Your task to perform on an android device: Open eBay Image 0: 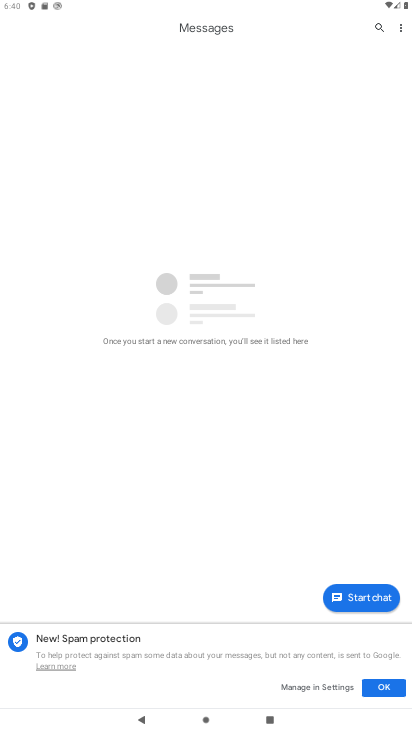
Step 0: press home button
Your task to perform on an android device: Open eBay Image 1: 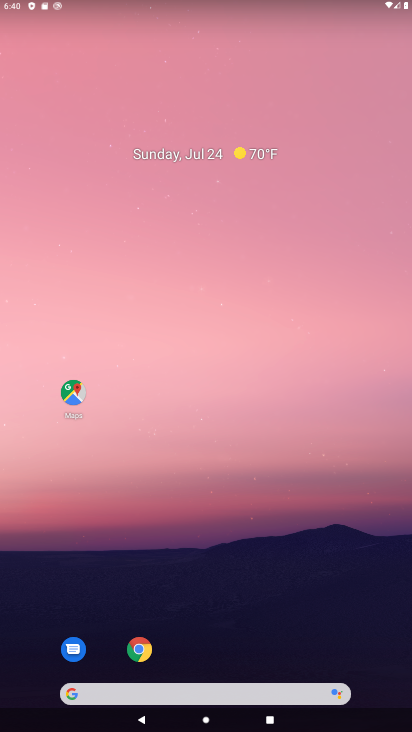
Step 1: click (143, 648)
Your task to perform on an android device: Open eBay Image 2: 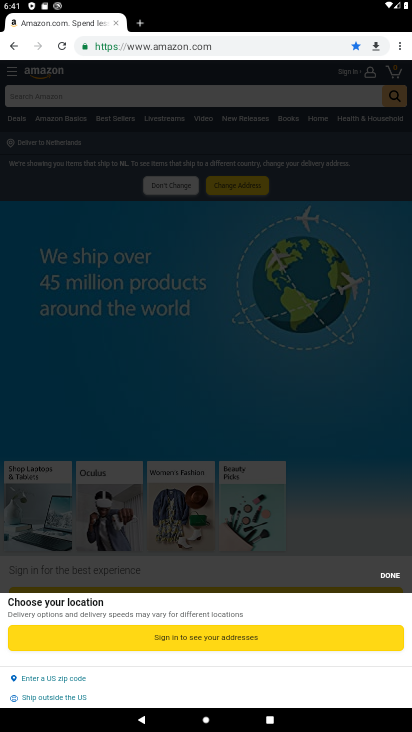
Step 2: click (398, 47)
Your task to perform on an android device: Open eBay Image 3: 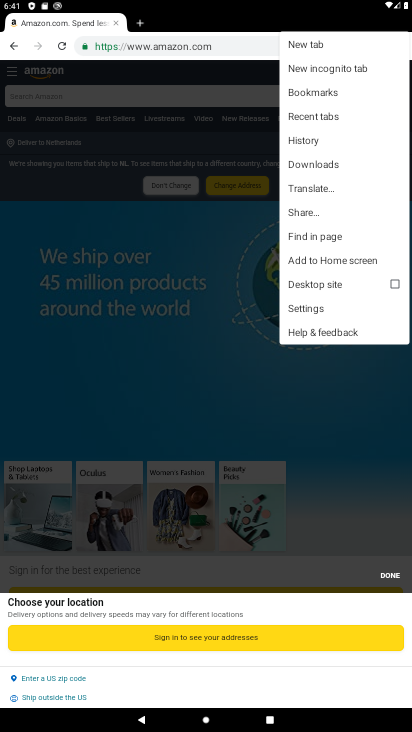
Step 3: click (309, 40)
Your task to perform on an android device: Open eBay Image 4: 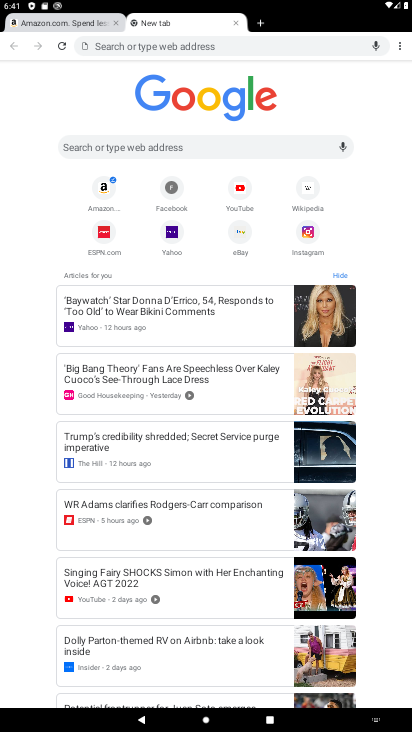
Step 4: click (242, 240)
Your task to perform on an android device: Open eBay Image 5: 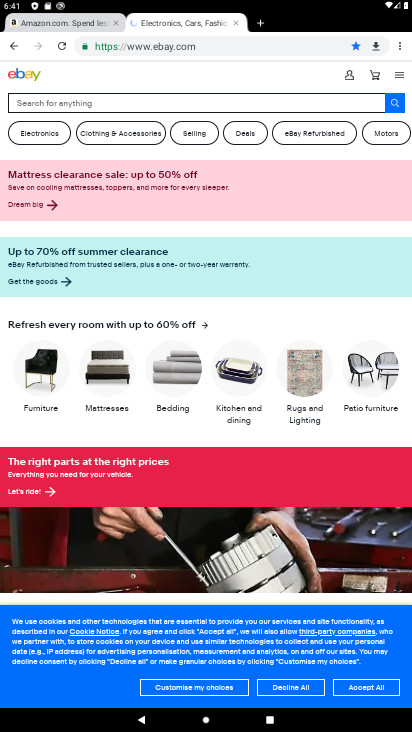
Step 5: task complete